Your task to perform on an android device: change alarm snooze length Image 0: 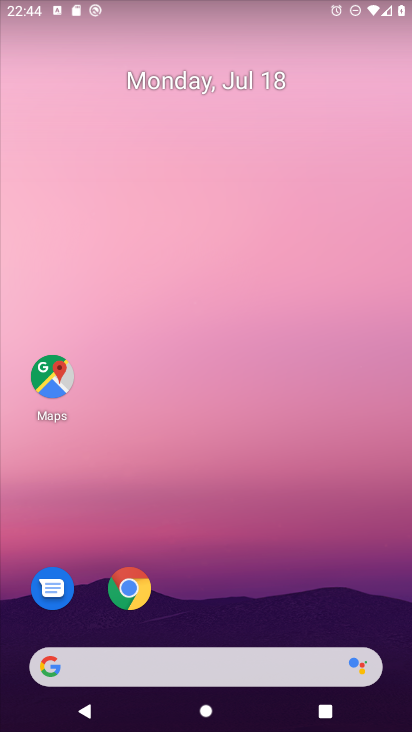
Step 0: drag from (376, 622) to (308, 87)
Your task to perform on an android device: change alarm snooze length Image 1: 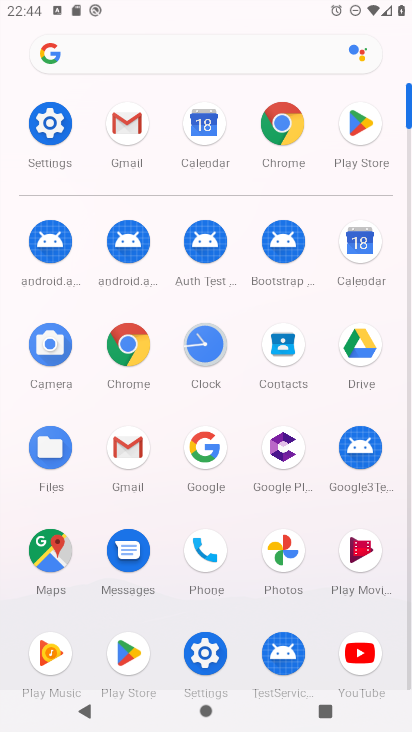
Step 1: click (205, 345)
Your task to perform on an android device: change alarm snooze length Image 2: 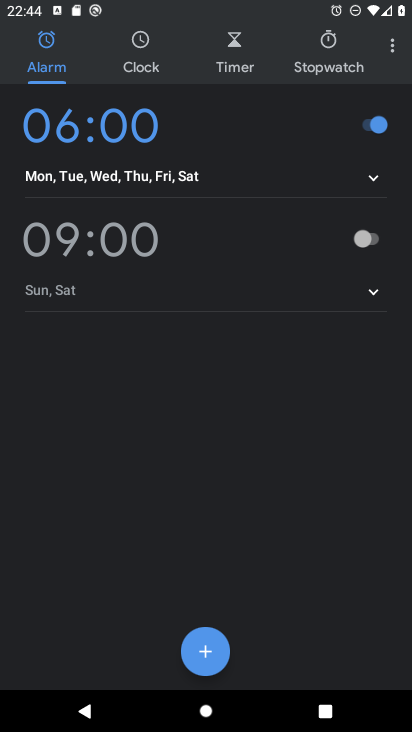
Step 2: click (390, 49)
Your task to perform on an android device: change alarm snooze length Image 3: 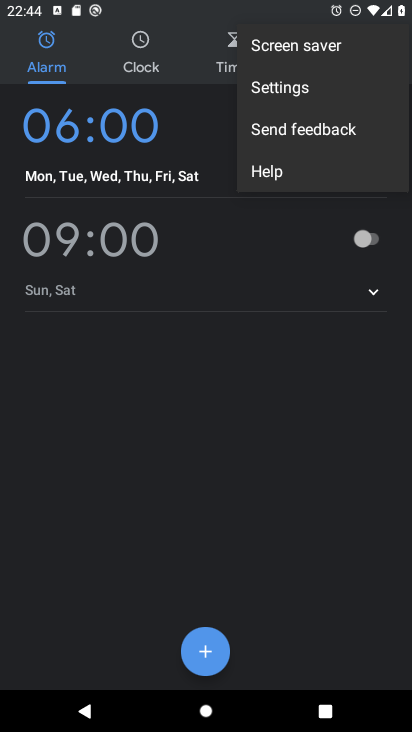
Step 3: click (266, 83)
Your task to perform on an android device: change alarm snooze length Image 4: 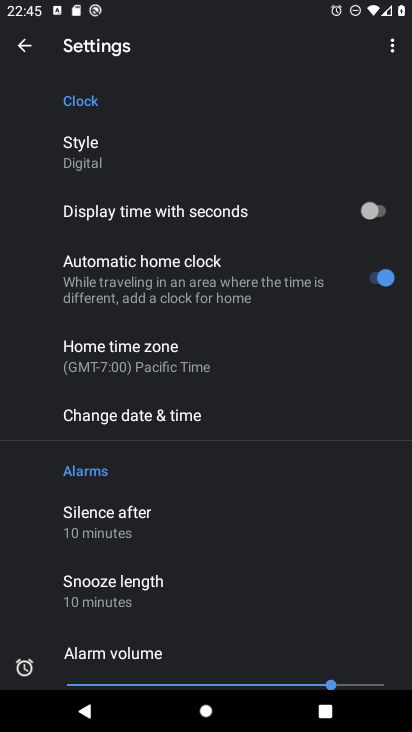
Step 4: drag from (231, 532) to (202, 309)
Your task to perform on an android device: change alarm snooze length Image 5: 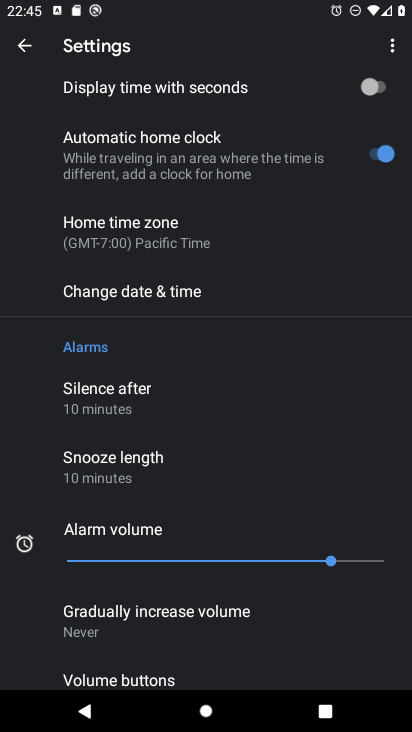
Step 5: click (116, 462)
Your task to perform on an android device: change alarm snooze length Image 6: 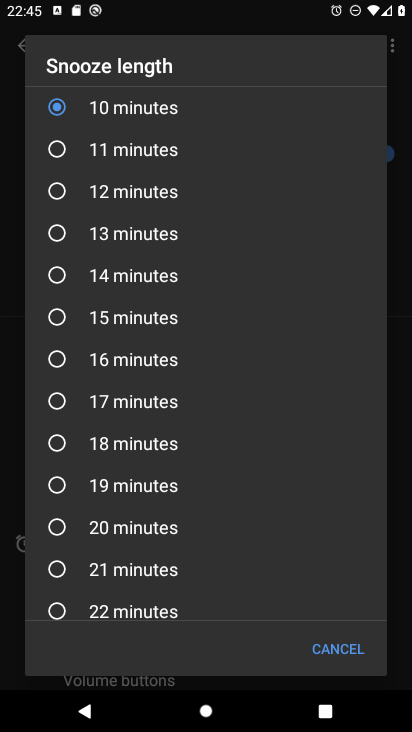
Step 6: click (56, 312)
Your task to perform on an android device: change alarm snooze length Image 7: 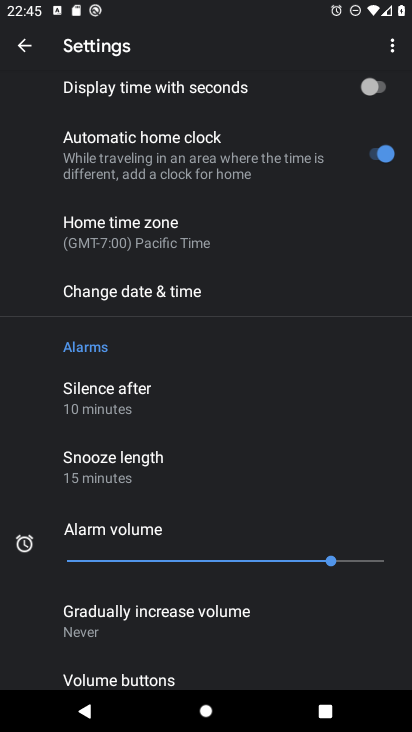
Step 7: task complete